Your task to perform on an android device: snooze an email in the gmail app Image 0: 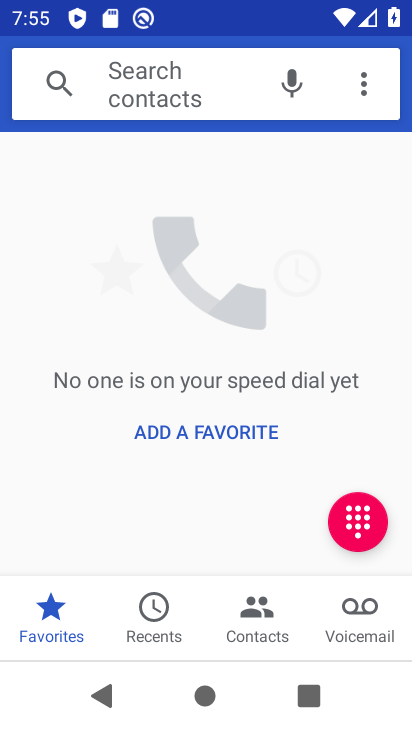
Step 0: press home button
Your task to perform on an android device: snooze an email in the gmail app Image 1: 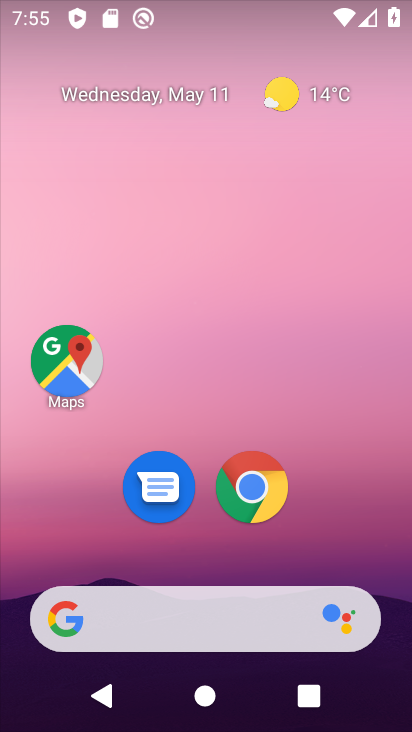
Step 1: drag from (192, 576) to (268, 229)
Your task to perform on an android device: snooze an email in the gmail app Image 2: 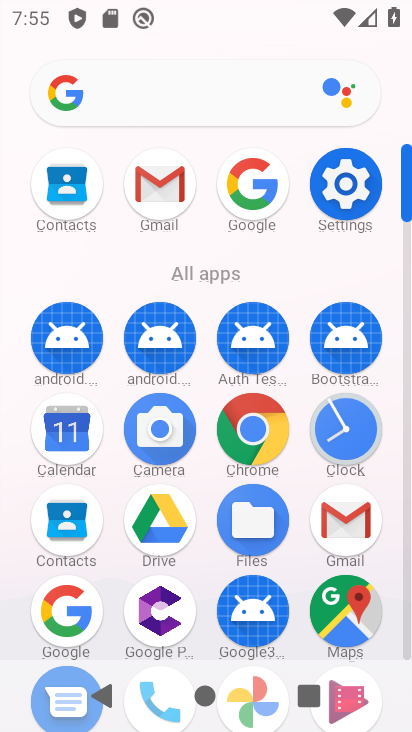
Step 2: click (147, 198)
Your task to perform on an android device: snooze an email in the gmail app Image 3: 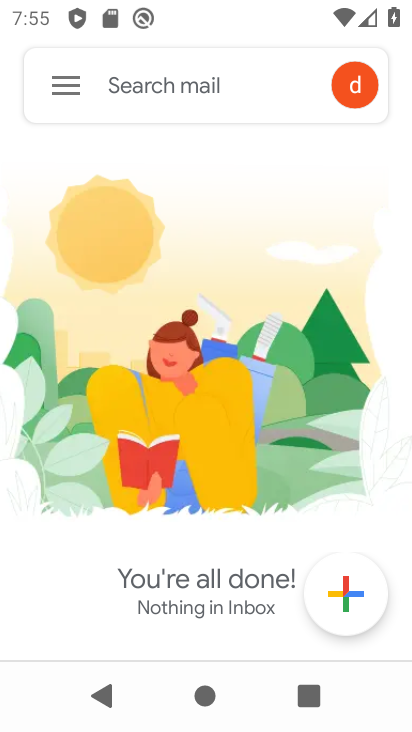
Step 3: click (72, 82)
Your task to perform on an android device: snooze an email in the gmail app Image 4: 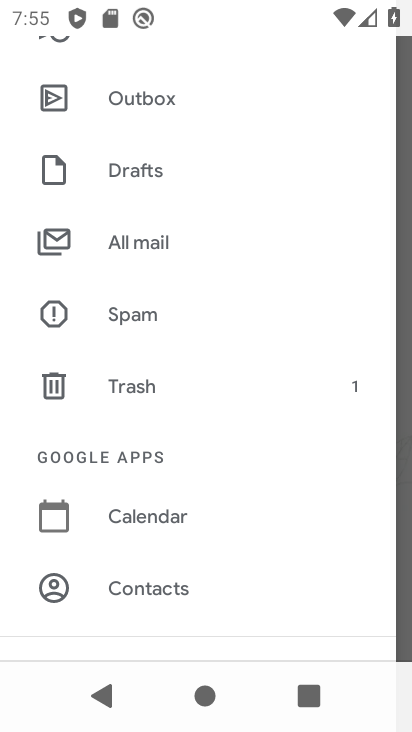
Step 4: drag from (156, 270) to (201, 581)
Your task to perform on an android device: snooze an email in the gmail app Image 5: 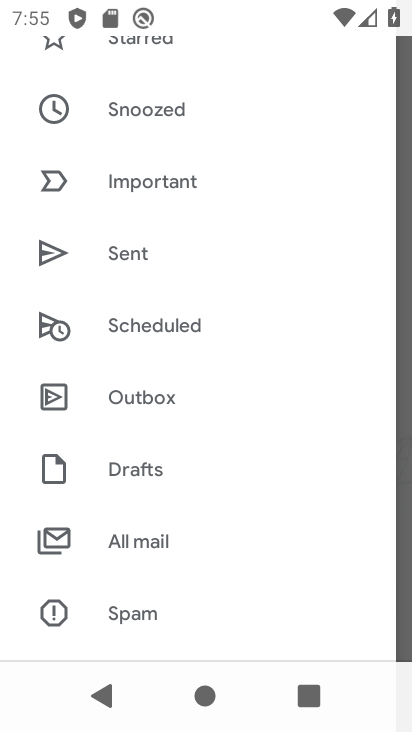
Step 5: click (172, 104)
Your task to perform on an android device: snooze an email in the gmail app Image 6: 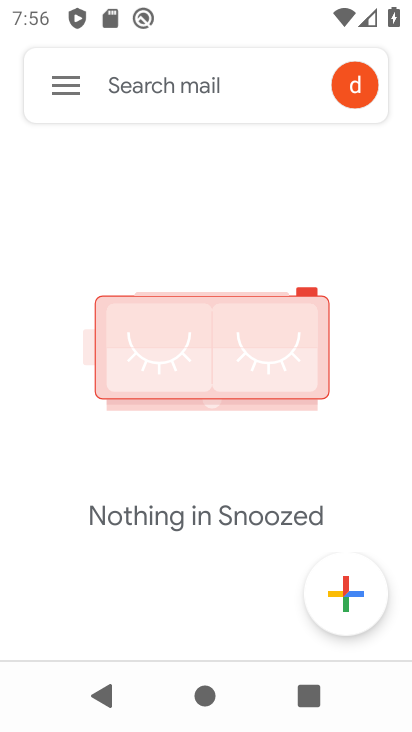
Step 6: task complete